Your task to perform on an android device: open the mobile data screen to see how much data has been used Image 0: 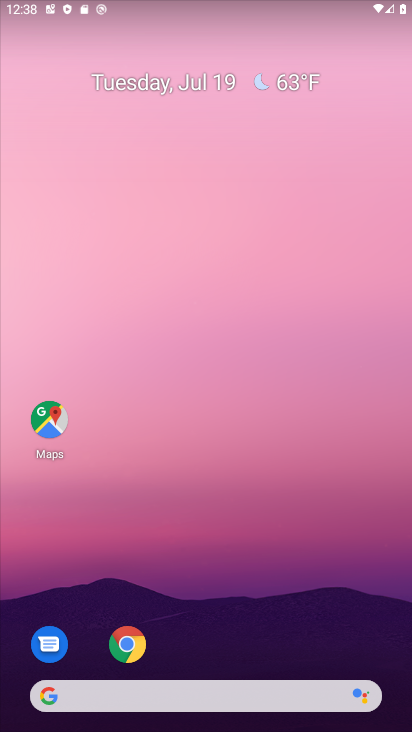
Step 0: drag from (232, 687) to (232, 231)
Your task to perform on an android device: open the mobile data screen to see how much data has been used Image 1: 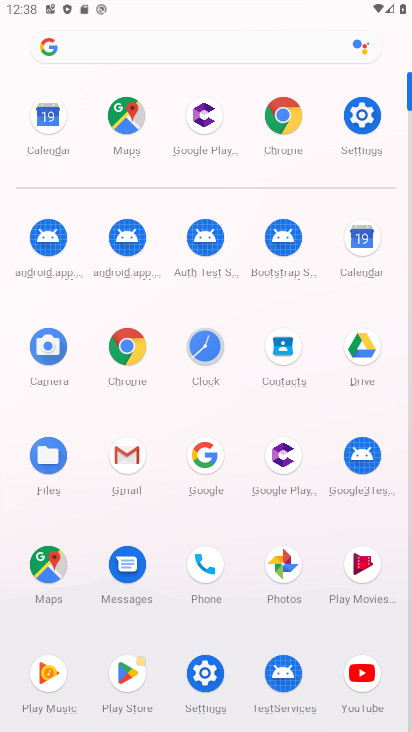
Step 1: click (363, 121)
Your task to perform on an android device: open the mobile data screen to see how much data has been used Image 2: 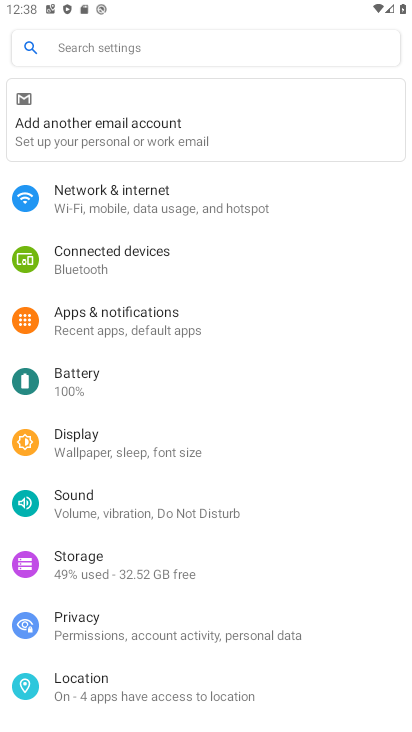
Step 2: click (108, 188)
Your task to perform on an android device: open the mobile data screen to see how much data has been used Image 3: 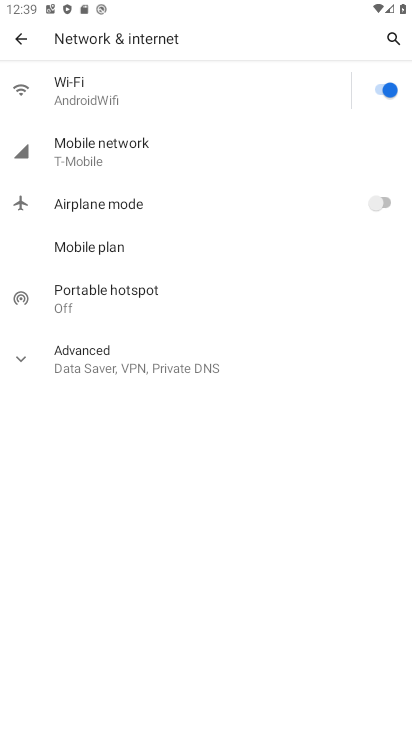
Step 3: click (94, 146)
Your task to perform on an android device: open the mobile data screen to see how much data has been used Image 4: 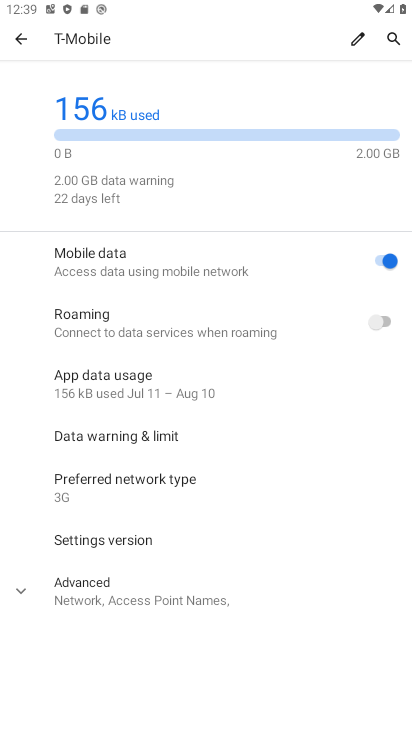
Step 4: click (117, 385)
Your task to perform on an android device: open the mobile data screen to see how much data has been used Image 5: 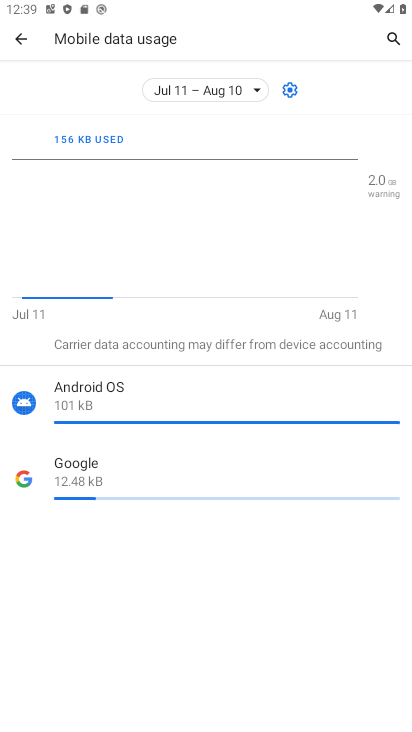
Step 5: task complete